Your task to perform on an android device: Open Amazon Image 0: 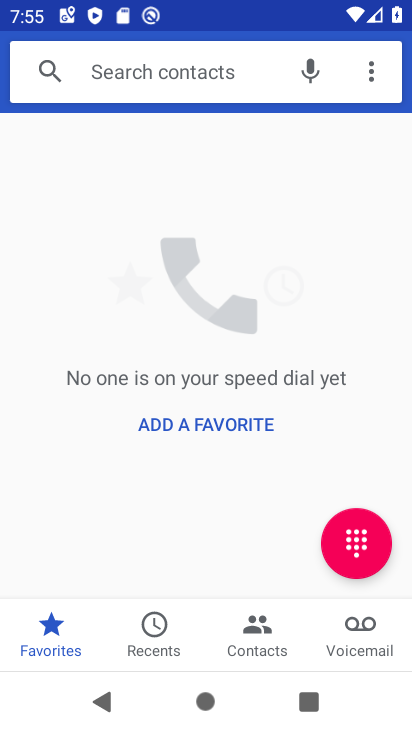
Step 0: press home button
Your task to perform on an android device: Open Amazon Image 1: 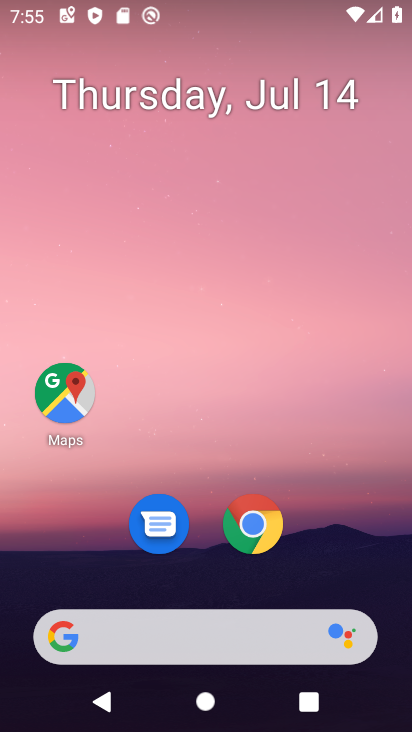
Step 1: click (272, 524)
Your task to perform on an android device: Open Amazon Image 2: 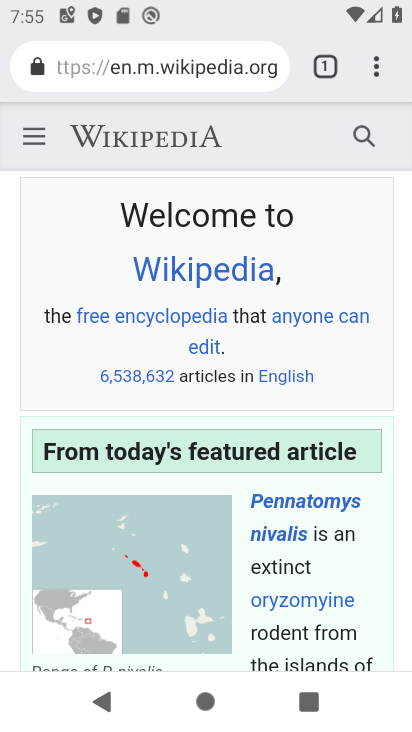
Step 2: press back button
Your task to perform on an android device: Open Amazon Image 3: 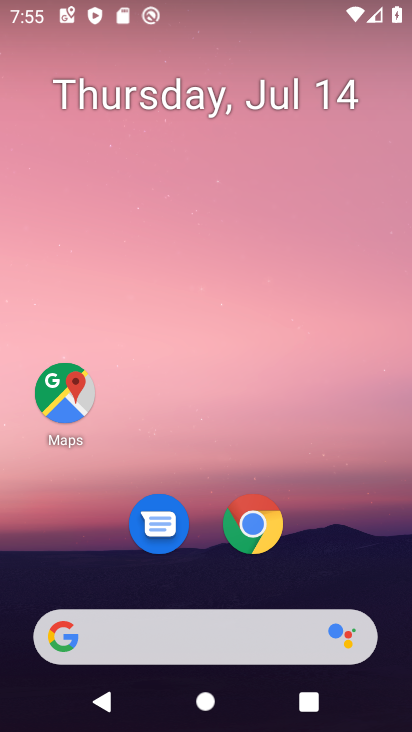
Step 3: click (272, 525)
Your task to perform on an android device: Open Amazon Image 4: 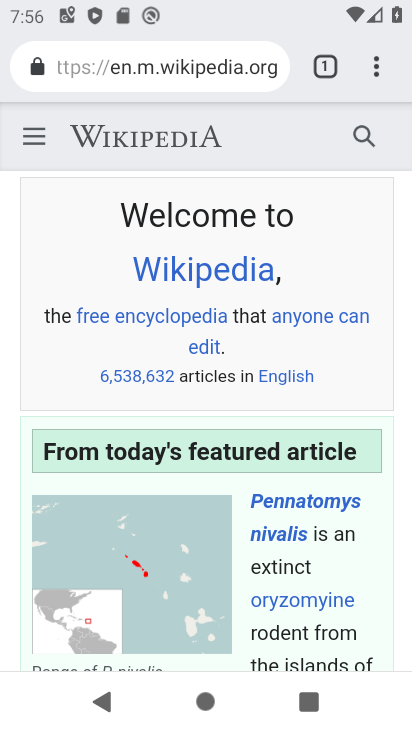
Step 4: click (378, 72)
Your task to perform on an android device: Open Amazon Image 5: 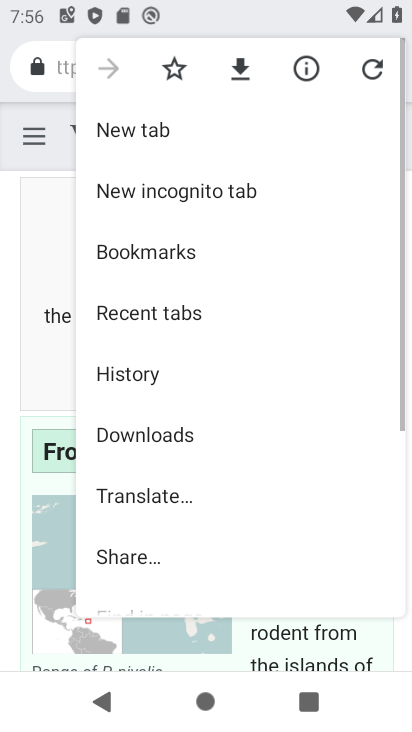
Step 5: click (276, 134)
Your task to perform on an android device: Open Amazon Image 6: 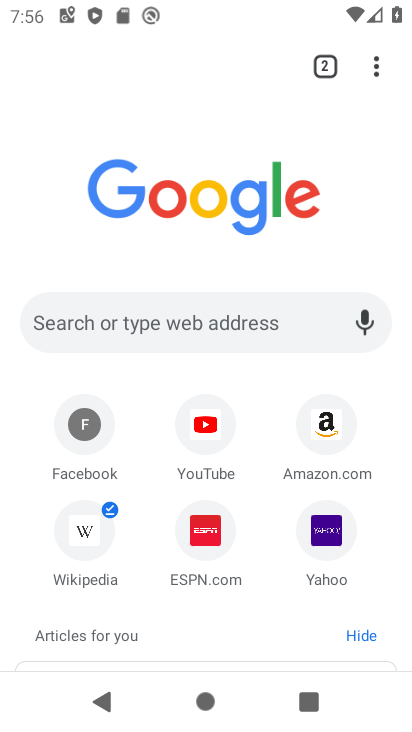
Step 6: click (323, 424)
Your task to perform on an android device: Open Amazon Image 7: 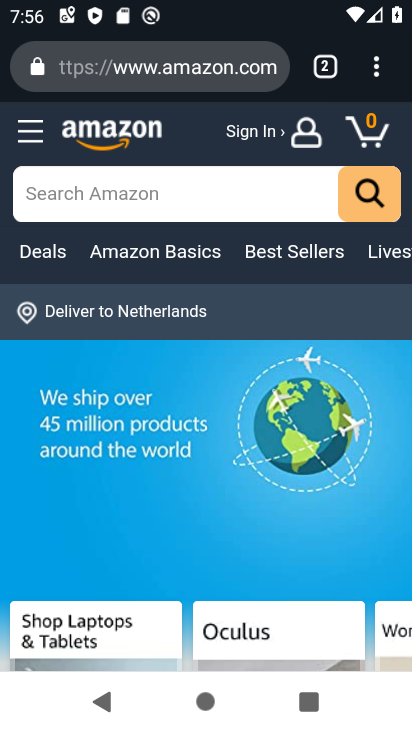
Step 7: task complete